Your task to perform on an android device: Open Chrome and go to settings Image 0: 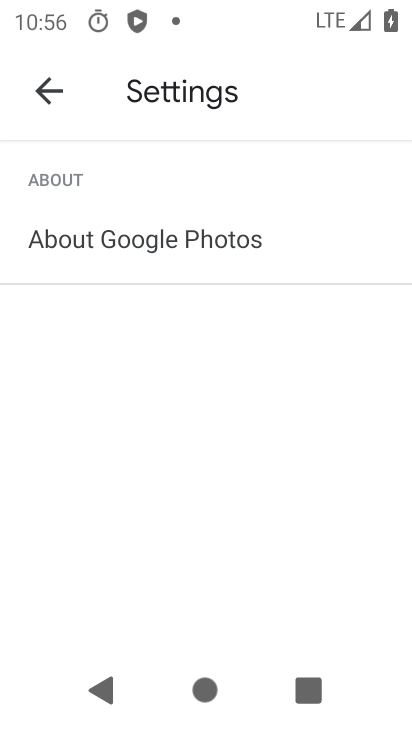
Step 0: press home button
Your task to perform on an android device: Open Chrome and go to settings Image 1: 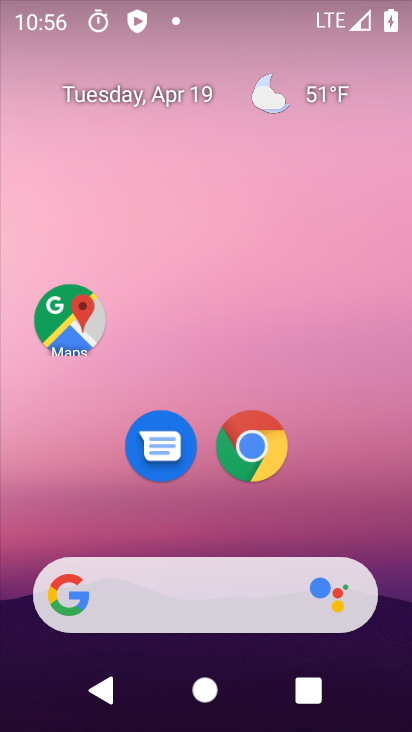
Step 1: click (246, 448)
Your task to perform on an android device: Open Chrome and go to settings Image 2: 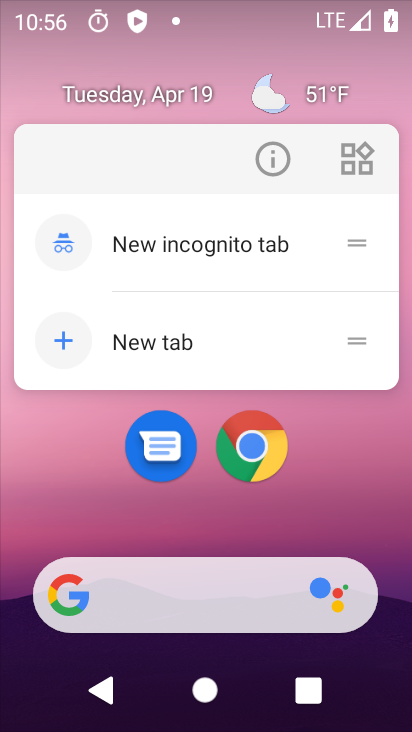
Step 2: click (246, 448)
Your task to perform on an android device: Open Chrome and go to settings Image 3: 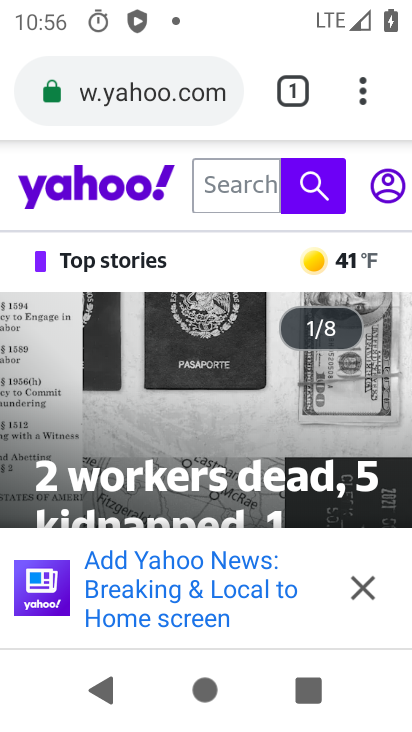
Step 3: click (361, 89)
Your task to perform on an android device: Open Chrome and go to settings Image 4: 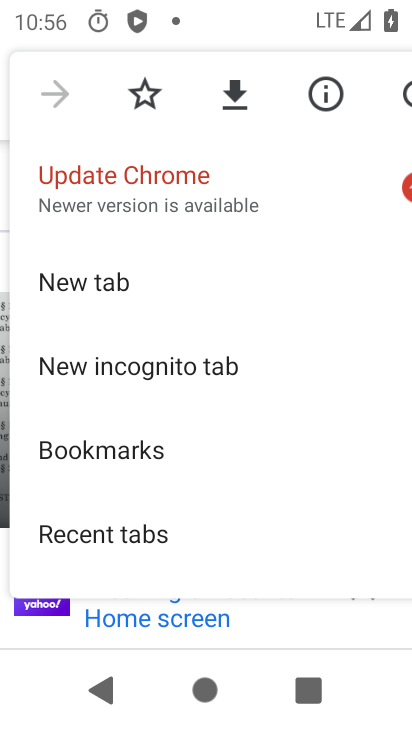
Step 4: drag from (283, 404) to (293, 202)
Your task to perform on an android device: Open Chrome and go to settings Image 5: 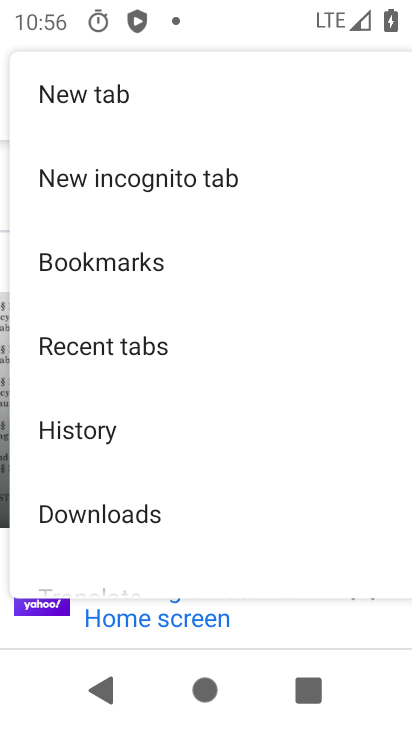
Step 5: drag from (275, 400) to (270, 154)
Your task to perform on an android device: Open Chrome and go to settings Image 6: 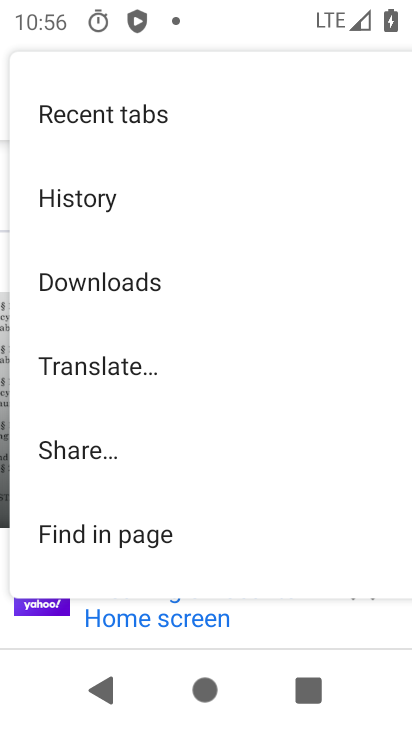
Step 6: drag from (255, 542) to (255, 161)
Your task to perform on an android device: Open Chrome and go to settings Image 7: 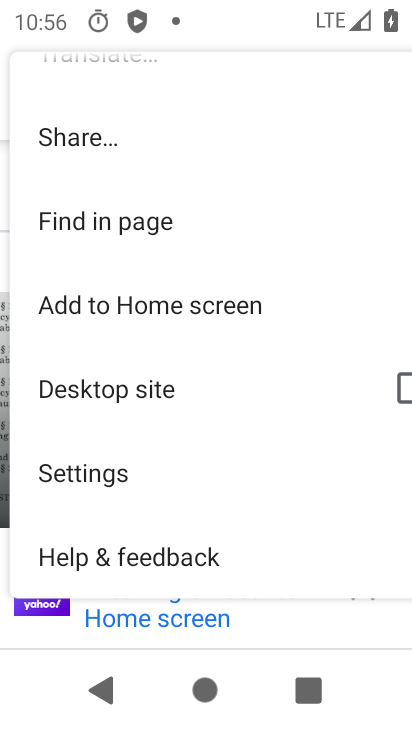
Step 7: click (82, 466)
Your task to perform on an android device: Open Chrome and go to settings Image 8: 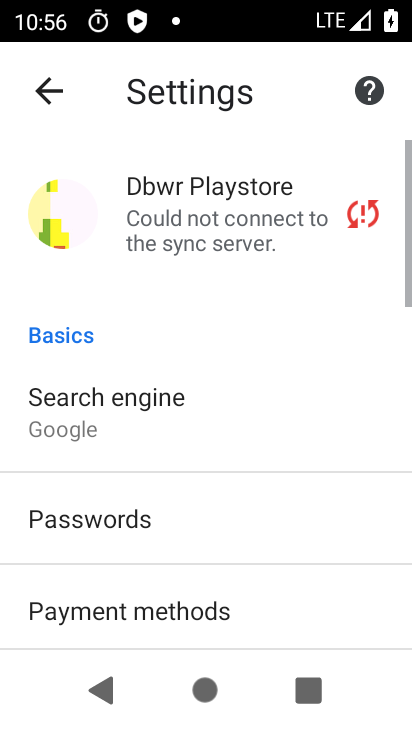
Step 8: task complete